Your task to perform on an android device: turn on location history Image 0: 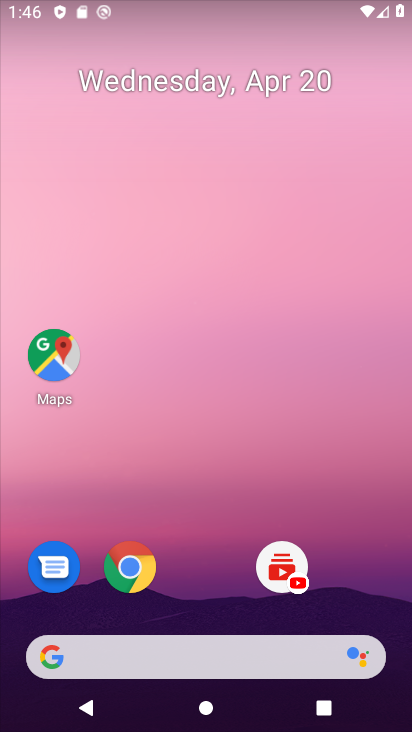
Step 0: drag from (259, 573) to (327, 235)
Your task to perform on an android device: turn on location history Image 1: 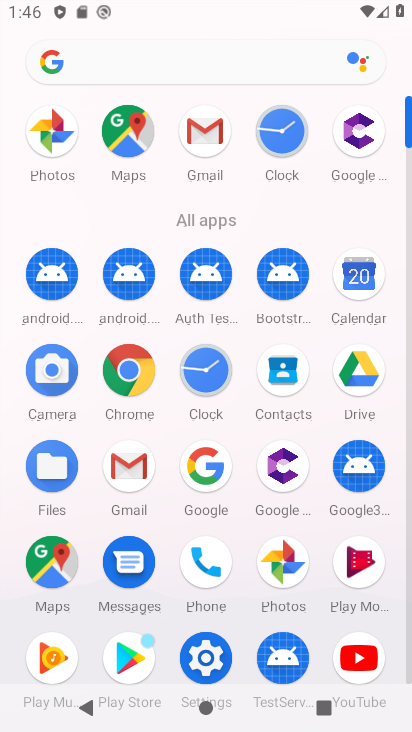
Step 1: click (196, 642)
Your task to perform on an android device: turn on location history Image 2: 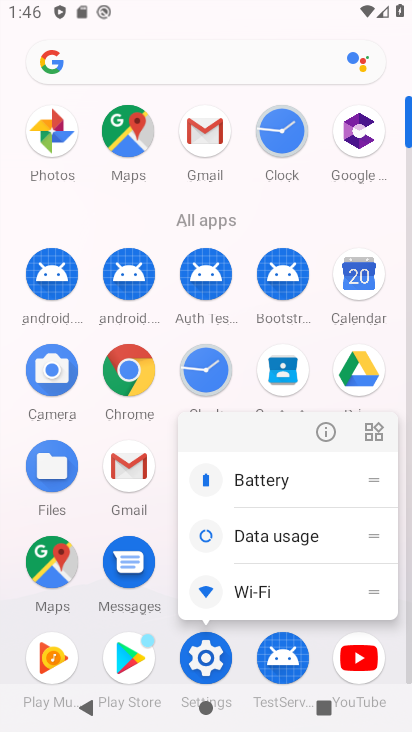
Step 2: click (330, 429)
Your task to perform on an android device: turn on location history Image 3: 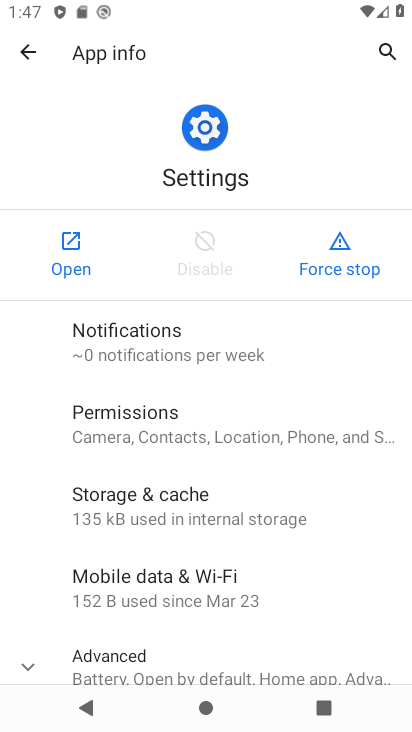
Step 3: click (65, 247)
Your task to perform on an android device: turn on location history Image 4: 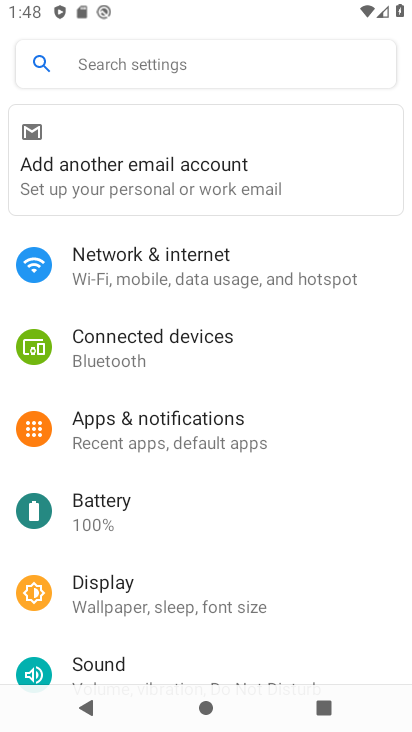
Step 4: drag from (200, 553) to (140, 182)
Your task to perform on an android device: turn on location history Image 5: 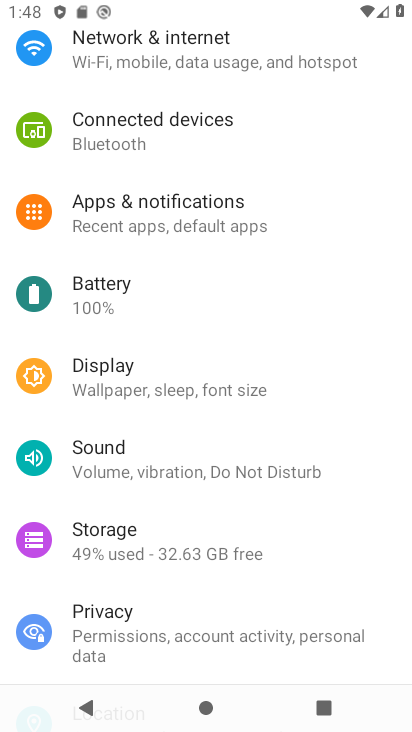
Step 5: drag from (250, 539) to (227, 117)
Your task to perform on an android device: turn on location history Image 6: 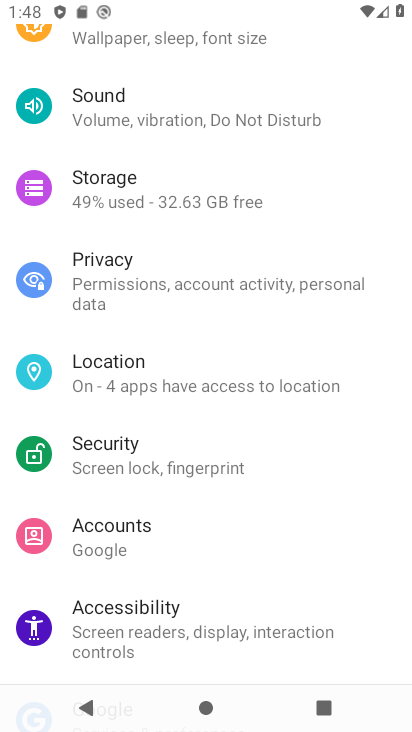
Step 6: click (156, 375)
Your task to perform on an android device: turn on location history Image 7: 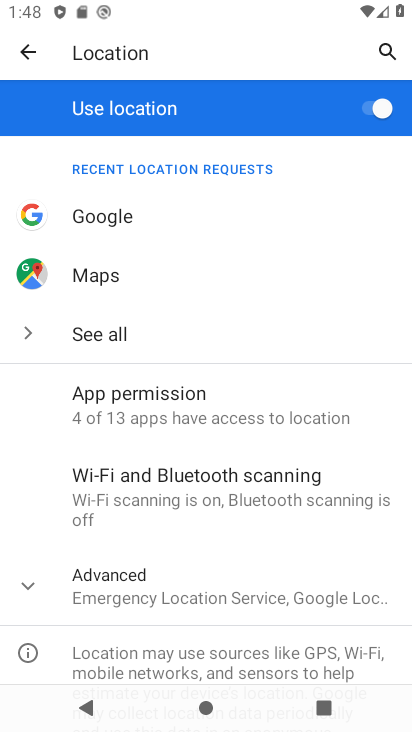
Step 7: drag from (199, 645) to (172, 180)
Your task to perform on an android device: turn on location history Image 8: 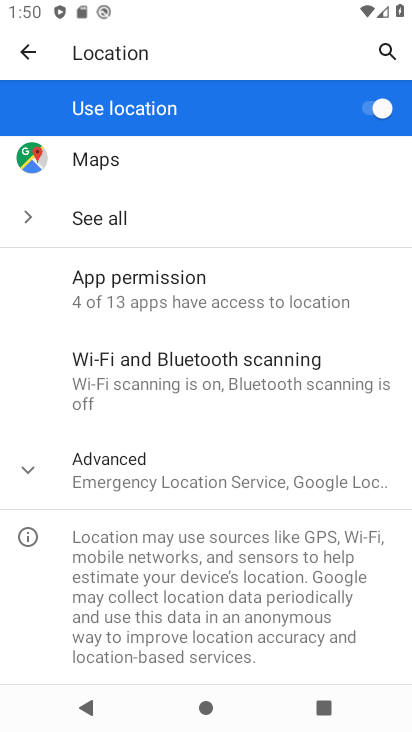
Step 8: click (158, 487)
Your task to perform on an android device: turn on location history Image 9: 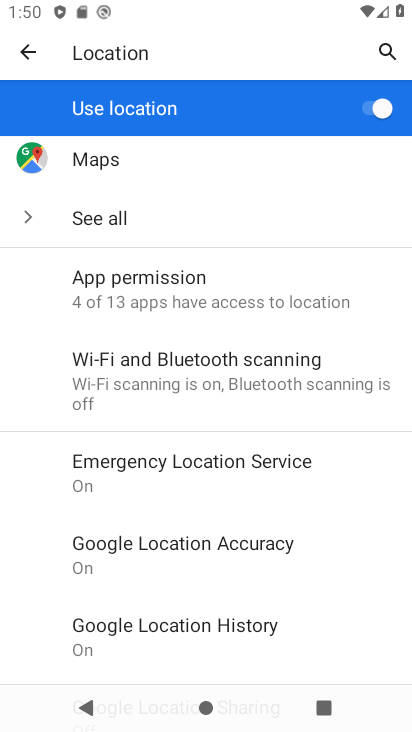
Step 9: click (231, 620)
Your task to perform on an android device: turn on location history Image 10: 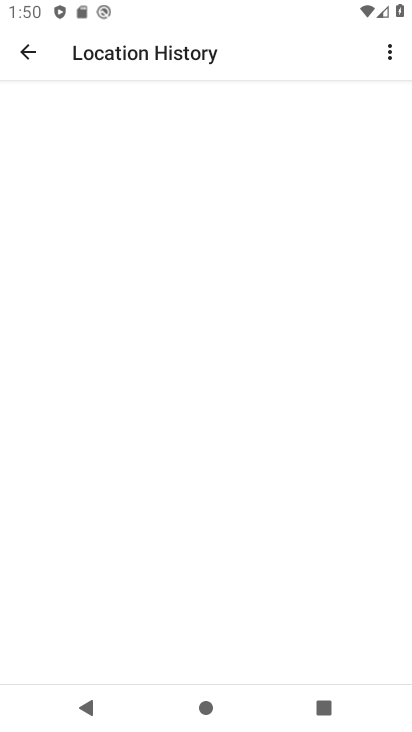
Step 10: task complete